Your task to perform on an android device: Search for "usb-a to usb-b" on bestbuy.com, select the first entry, and add it to the cart. Image 0: 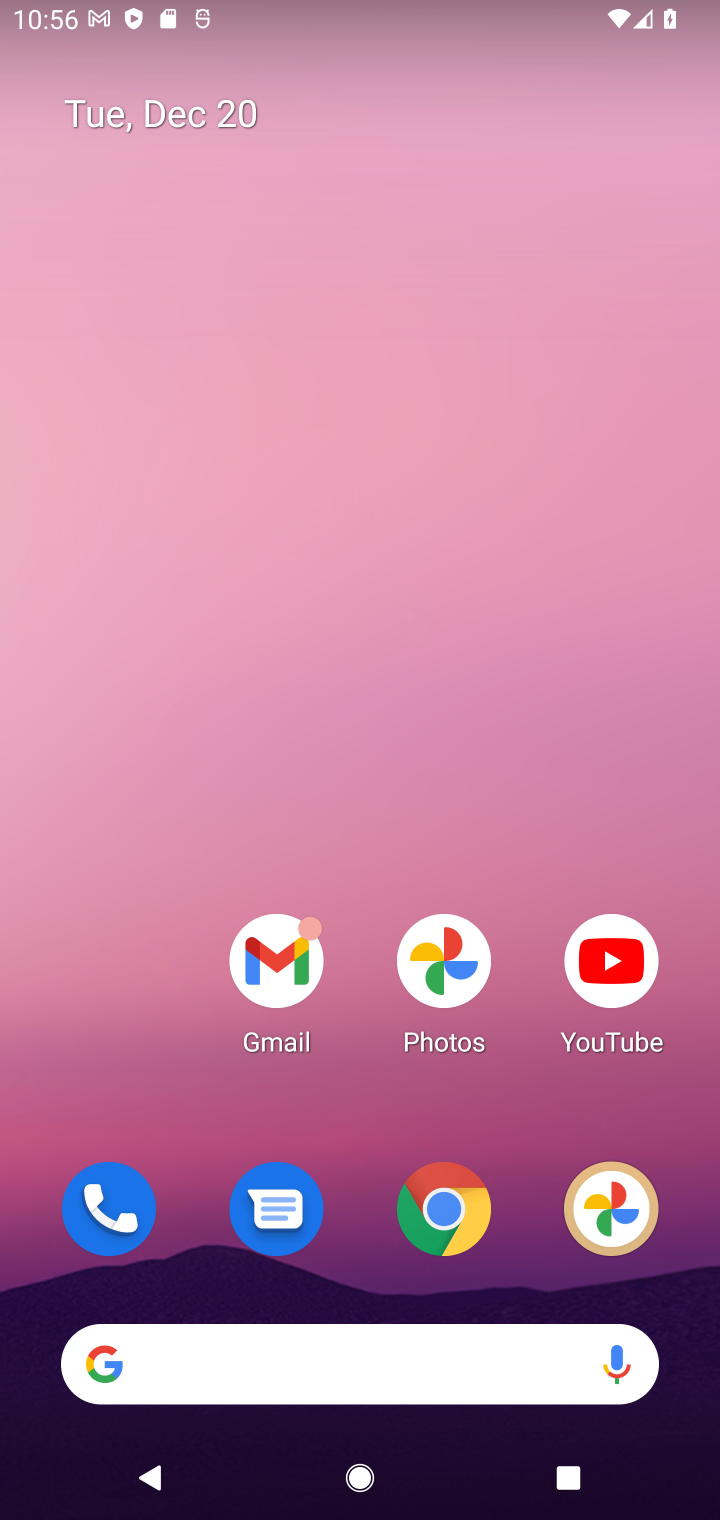
Step 0: click (443, 1215)
Your task to perform on an android device: Search for "usb-a to usb-b" on bestbuy.com, select the first entry, and add it to the cart. Image 1: 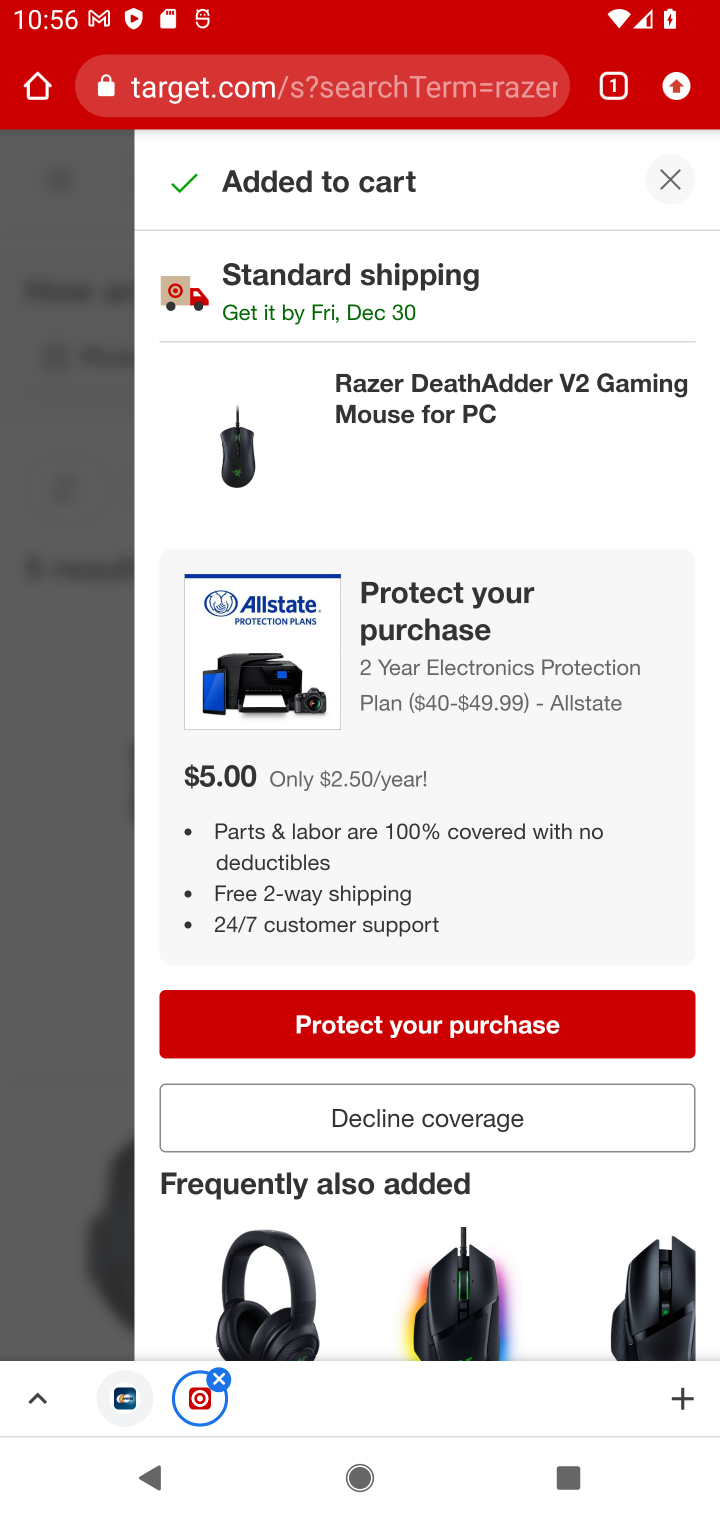
Step 1: click (259, 88)
Your task to perform on an android device: Search for "usb-a to usb-b" on bestbuy.com, select the first entry, and add it to the cart. Image 2: 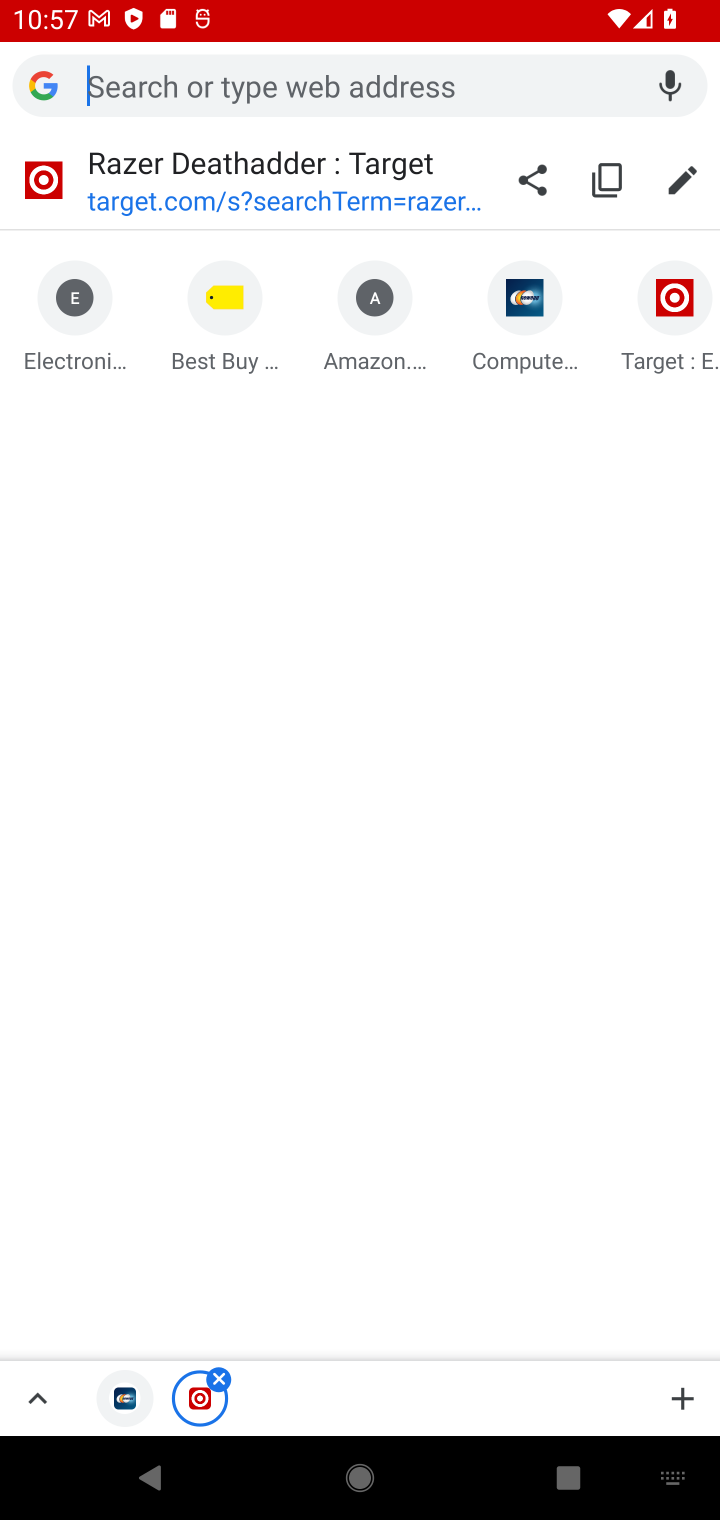
Step 2: click (200, 362)
Your task to perform on an android device: Search for "usb-a to usb-b" on bestbuy.com, select the first entry, and add it to the cart. Image 3: 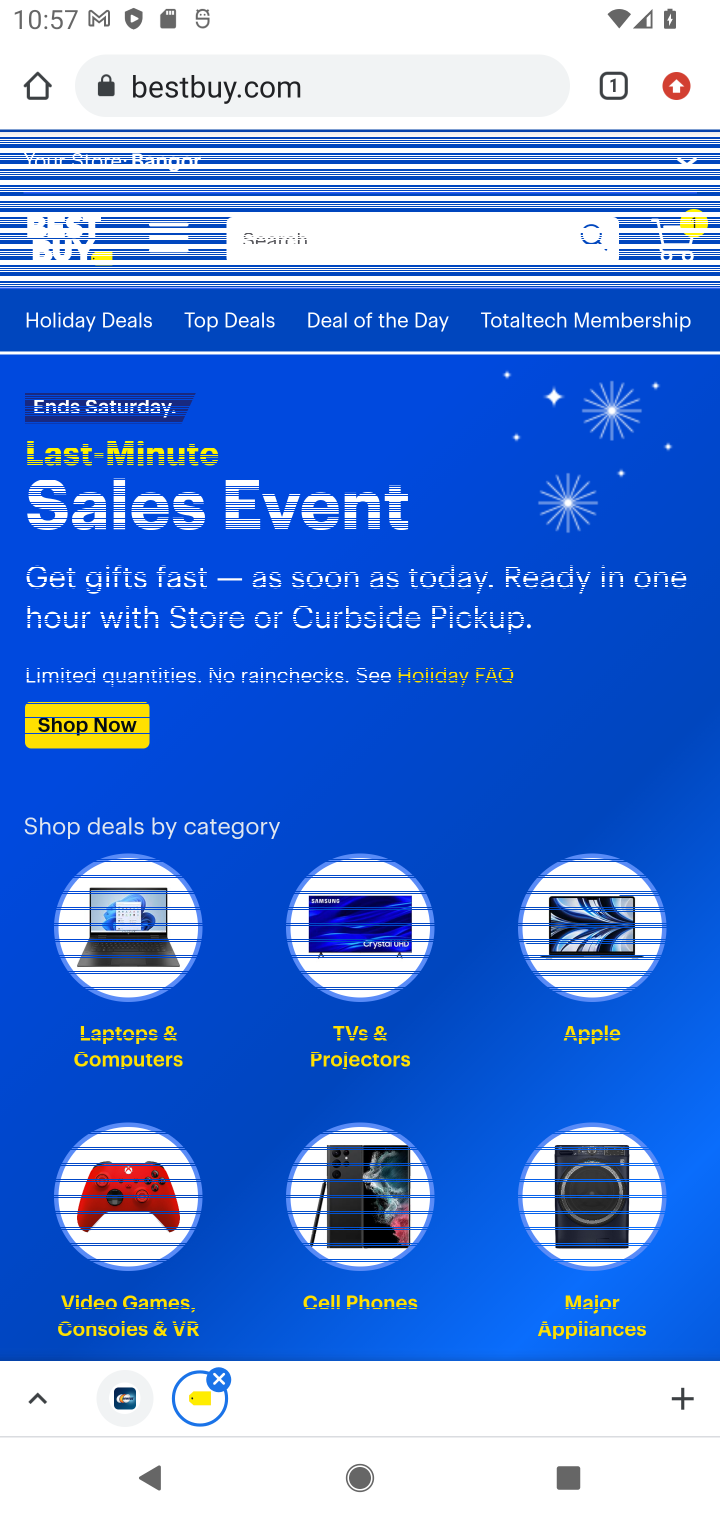
Step 3: click (325, 242)
Your task to perform on an android device: Search for "usb-a to usb-b" on bestbuy.com, select the first entry, and add it to the cart. Image 4: 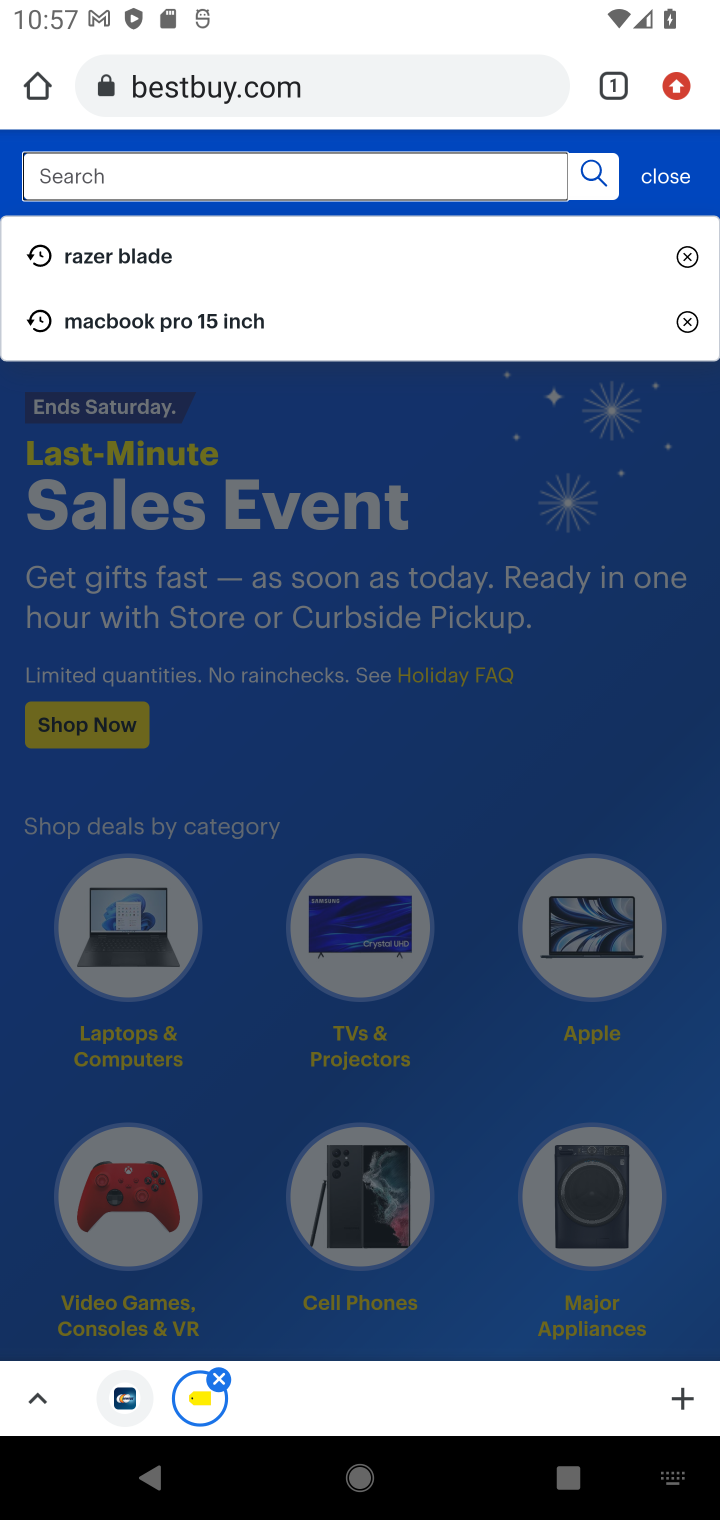
Step 4: type "usb-a to usb-b"
Your task to perform on an android device: Search for "usb-a to usb-b" on bestbuy.com, select the first entry, and add it to the cart. Image 5: 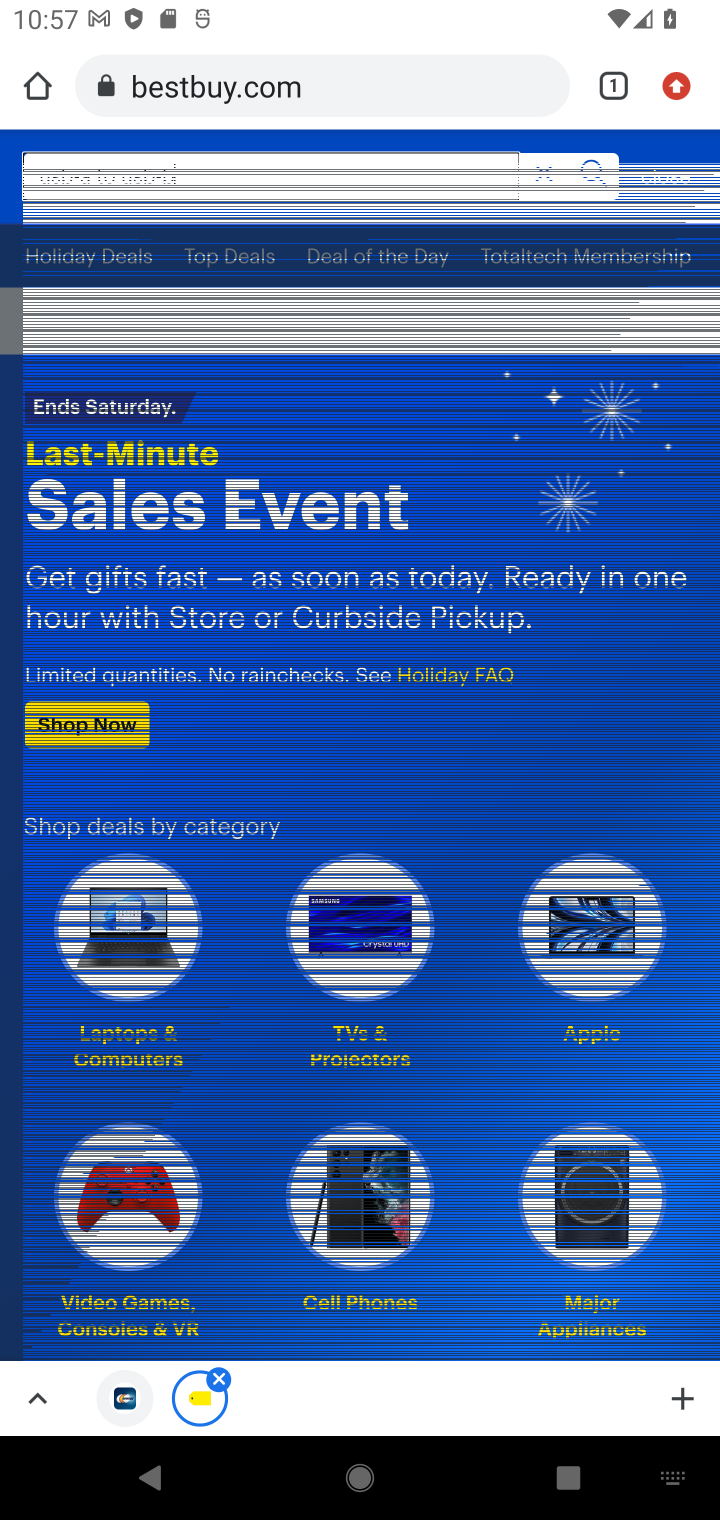
Step 5: click (592, 171)
Your task to perform on an android device: Search for "usb-a to usb-b" on bestbuy.com, select the first entry, and add it to the cart. Image 6: 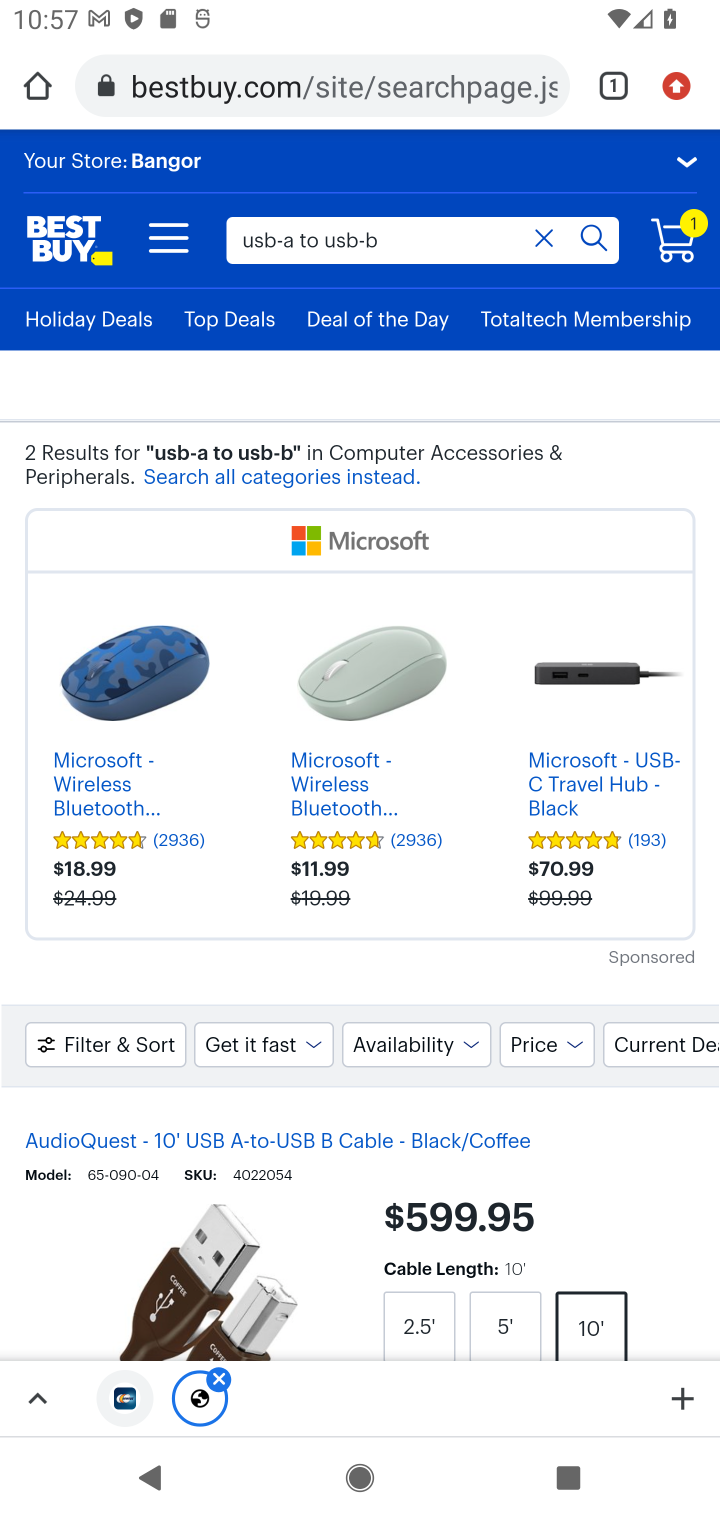
Step 6: drag from (226, 1227) to (258, 718)
Your task to perform on an android device: Search for "usb-a to usb-b" on bestbuy.com, select the first entry, and add it to the cart. Image 7: 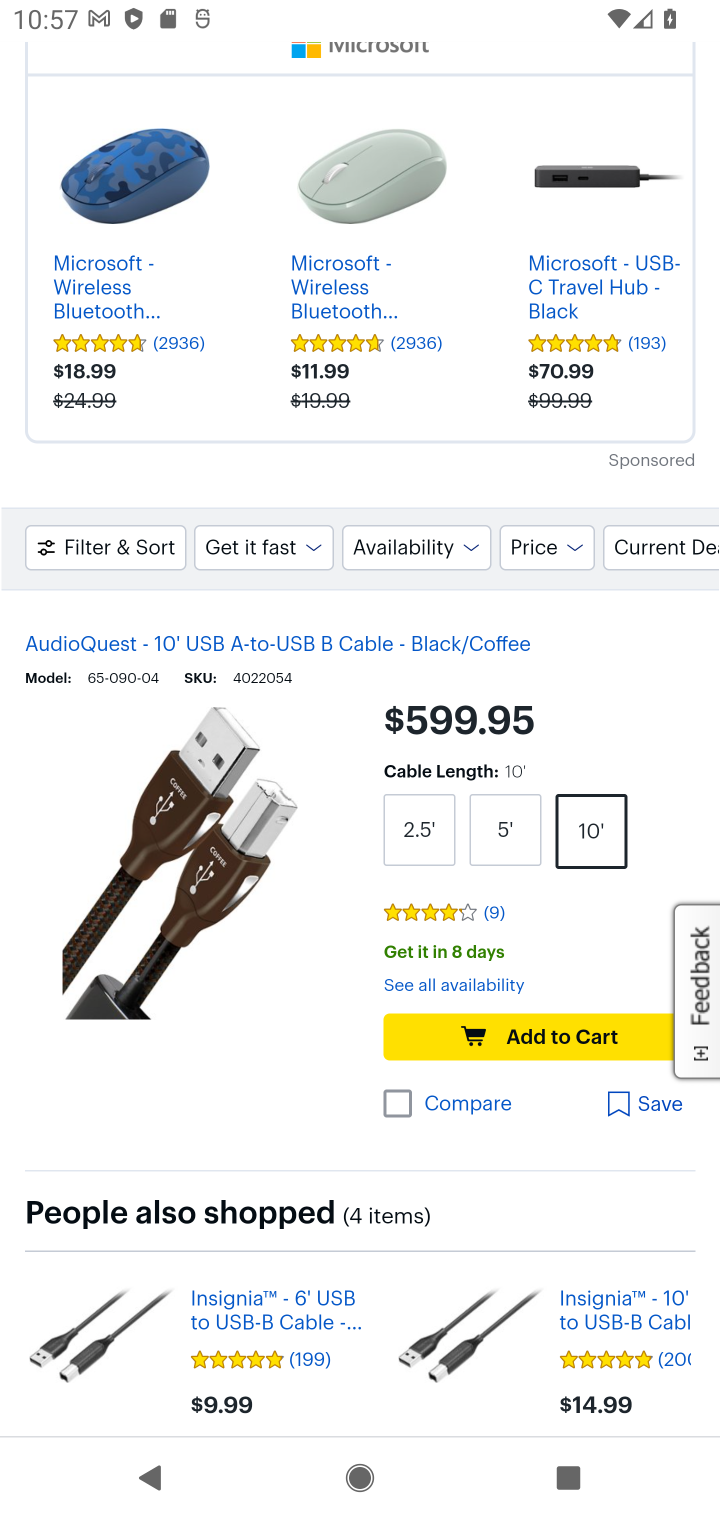
Step 7: click (536, 1031)
Your task to perform on an android device: Search for "usb-a to usb-b" on bestbuy.com, select the first entry, and add it to the cart. Image 8: 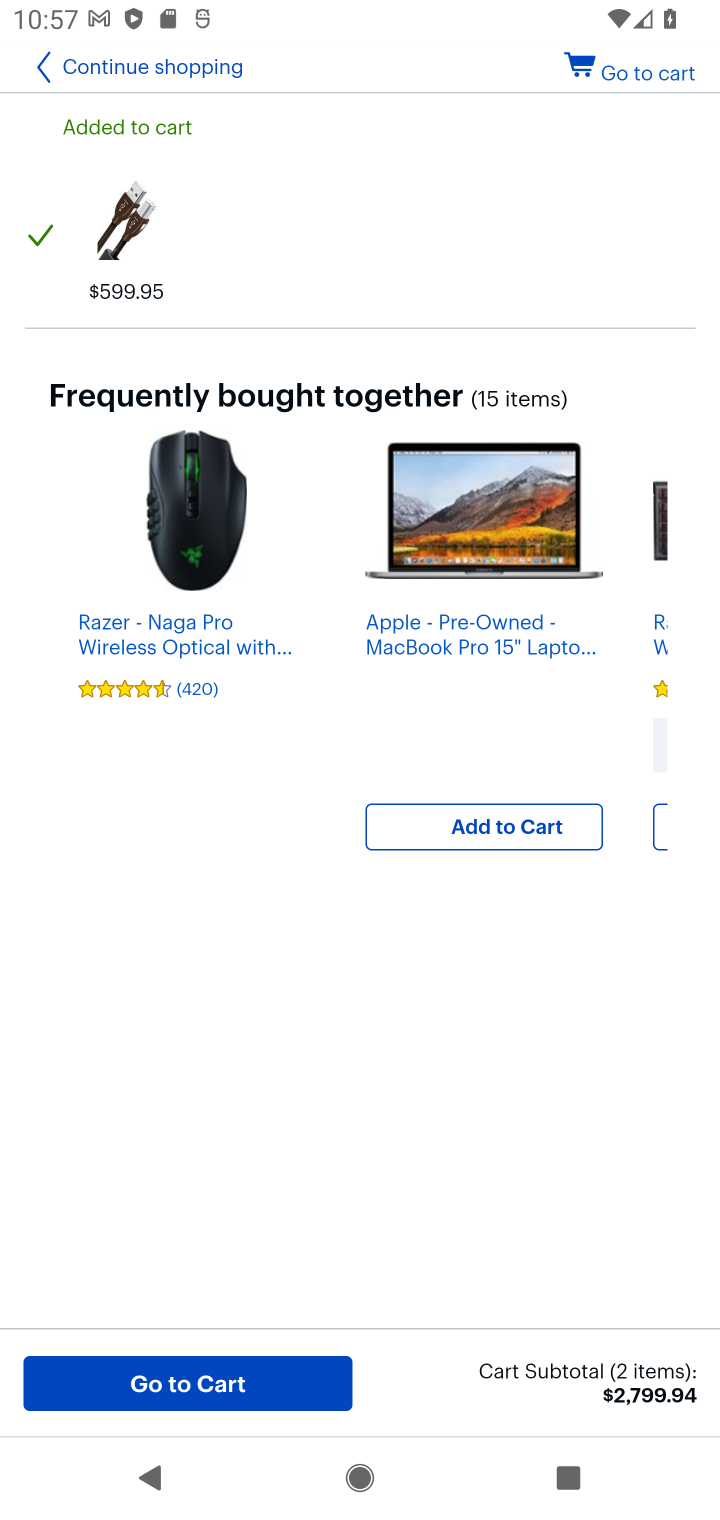
Step 8: task complete